Your task to perform on an android device: turn off sleep mode Image 0: 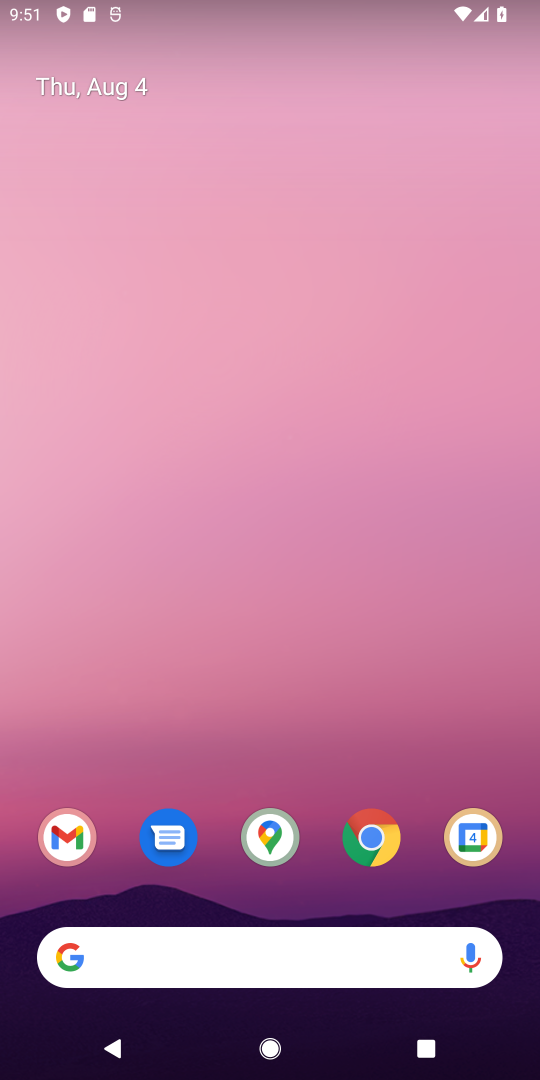
Step 0: drag from (289, 739) to (322, 35)
Your task to perform on an android device: turn off sleep mode Image 1: 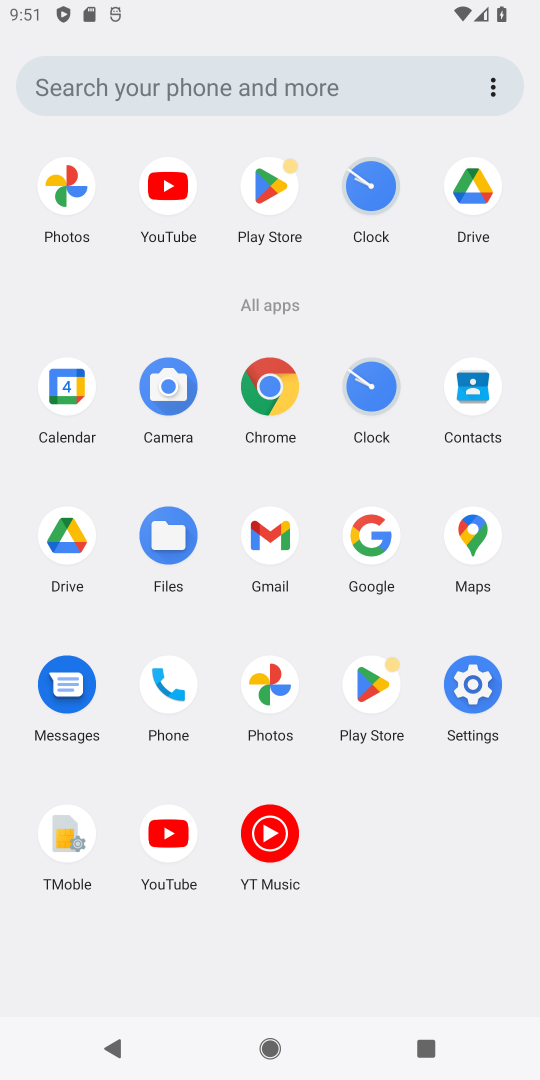
Step 1: click (472, 693)
Your task to perform on an android device: turn off sleep mode Image 2: 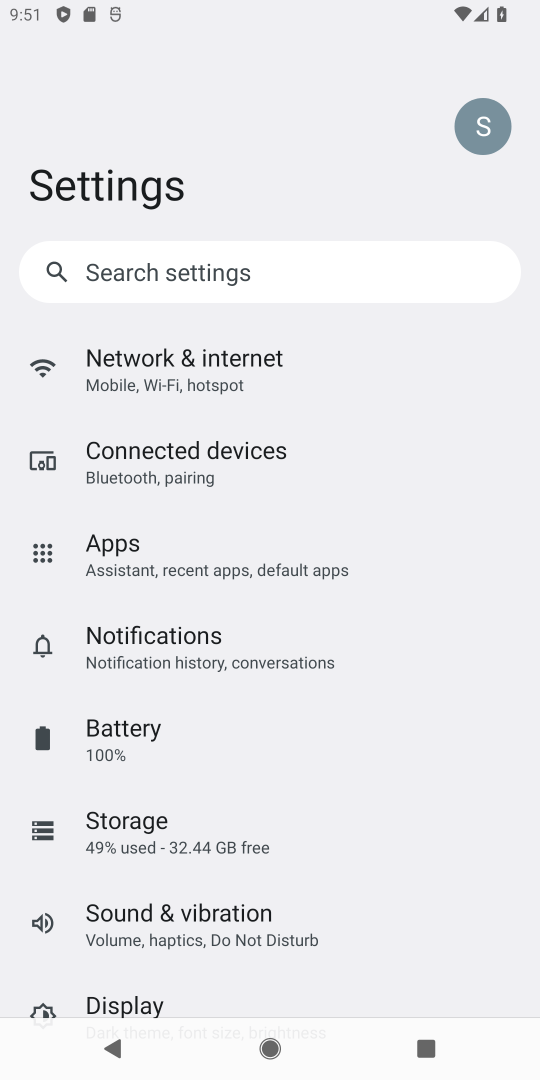
Step 2: task complete